Your task to perform on an android device: turn off airplane mode Image 0: 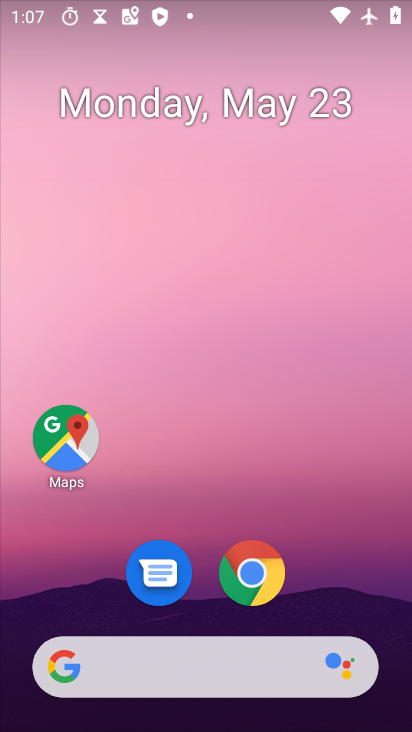
Step 0: press home button
Your task to perform on an android device: turn off airplane mode Image 1: 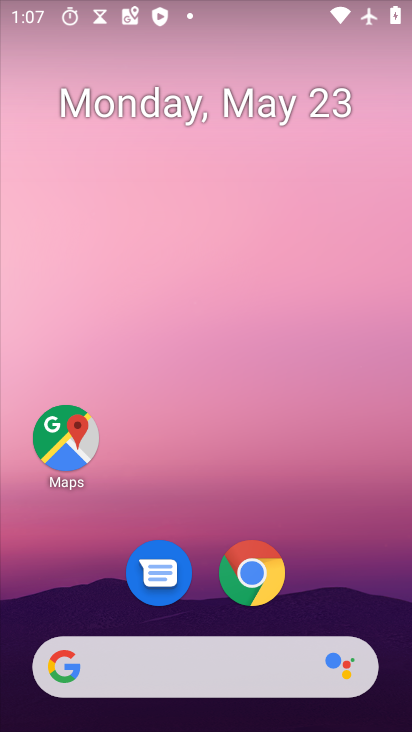
Step 1: drag from (187, 671) to (309, 172)
Your task to perform on an android device: turn off airplane mode Image 2: 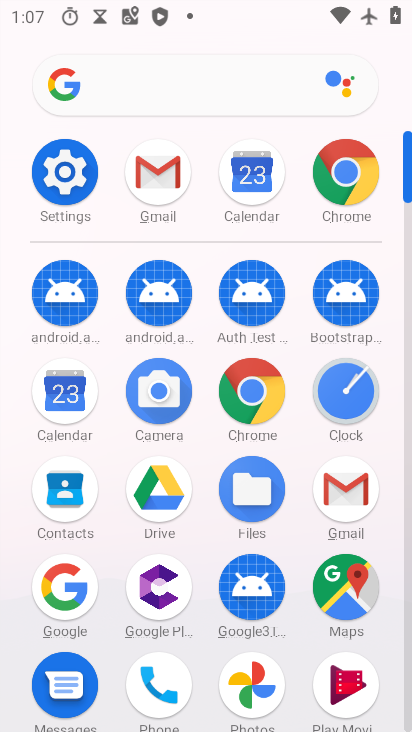
Step 2: click (68, 184)
Your task to perform on an android device: turn off airplane mode Image 3: 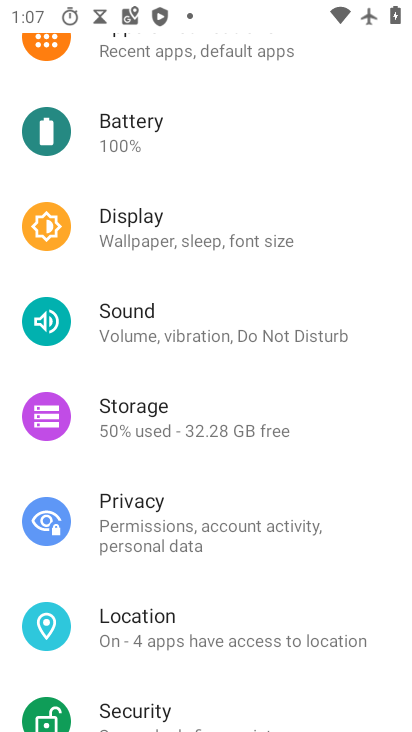
Step 3: drag from (302, 160) to (265, 572)
Your task to perform on an android device: turn off airplane mode Image 4: 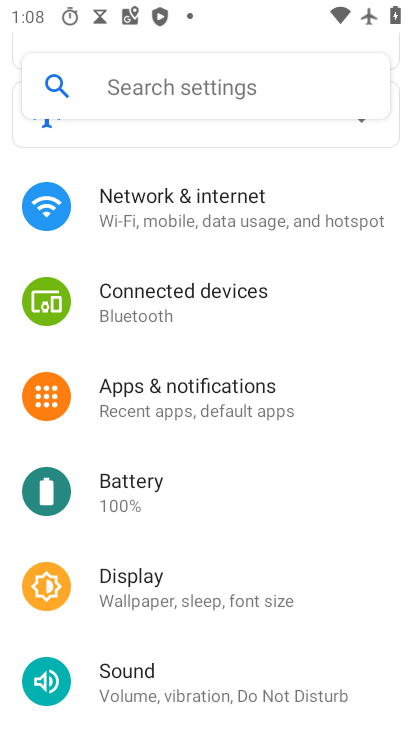
Step 4: click (227, 220)
Your task to perform on an android device: turn off airplane mode Image 5: 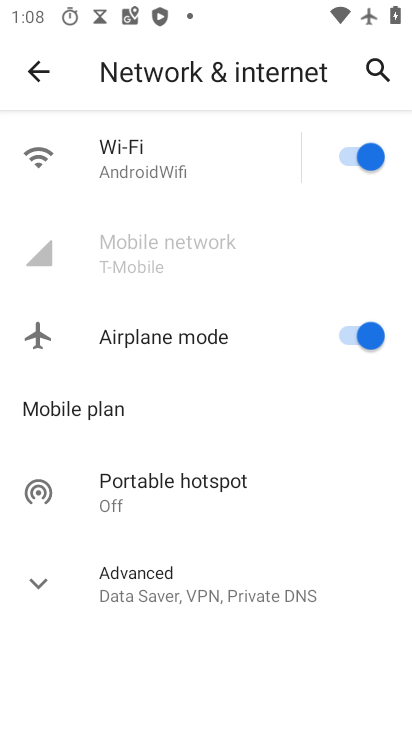
Step 5: click (342, 331)
Your task to perform on an android device: turn off airplane mode Image 6: 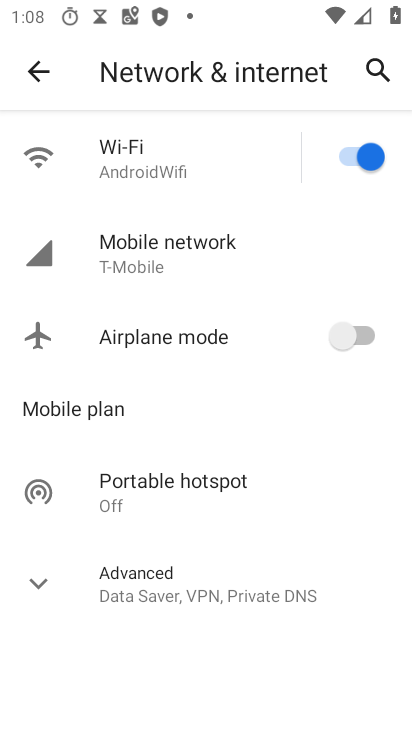
Step 6: task complete